Your task to perform on an android device: Open the stopwatch Image 0: 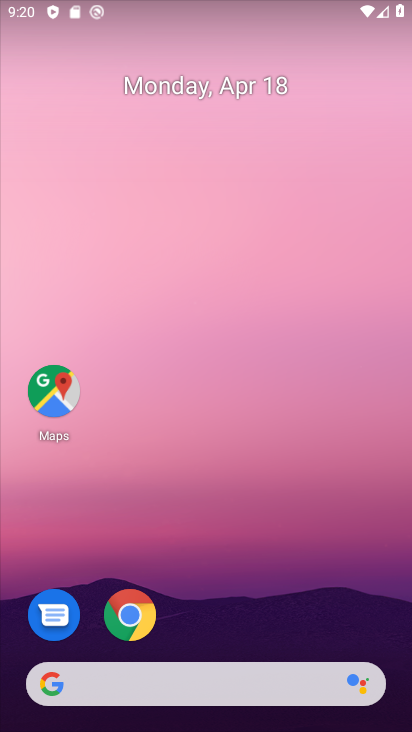
Step 0: drag from (238, 583) to (263, 125)
Your task to perform on an android device: Open the stopwatch Image 1: 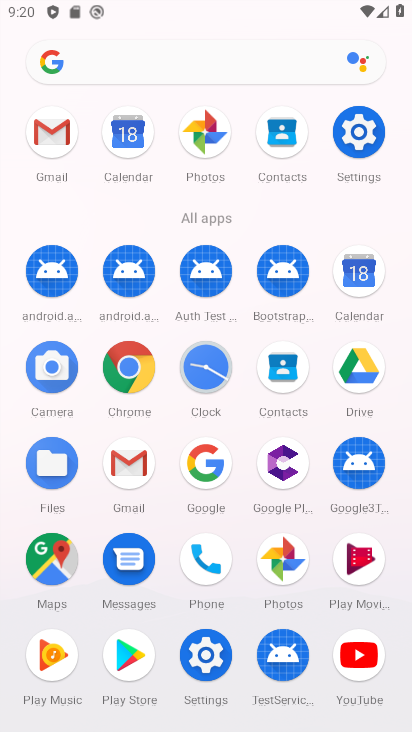
Step 1: click (199, 368)
Your task to perform on an android device: Open the stopwatch Image 2: 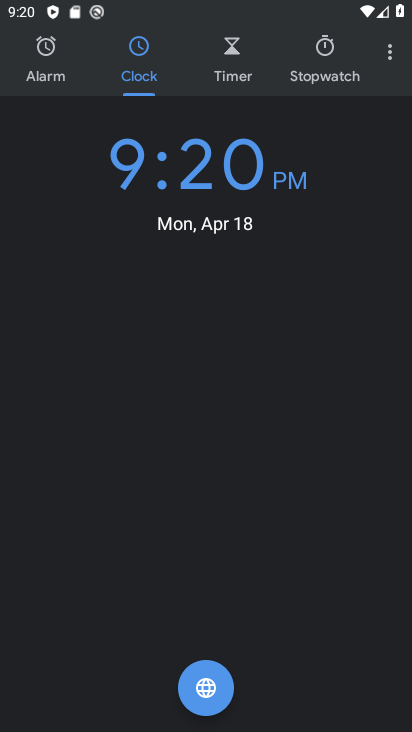
Step 2: click (330, 67)
Your task to perform on an android device: Open the stopwatch Image 3: 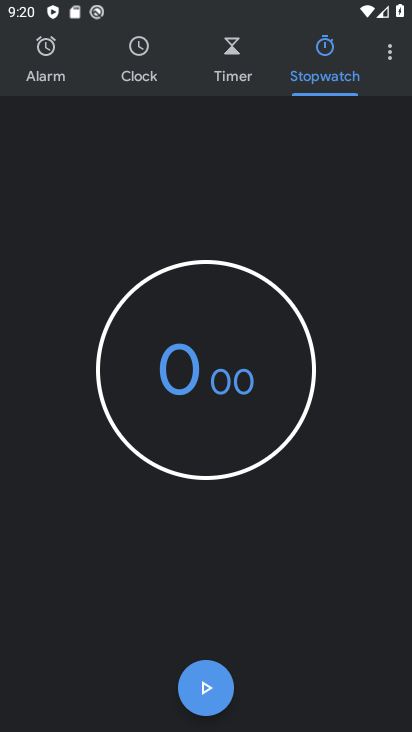
Step 3: click (191, 376)
Your task to perform on an android device: Open the stopwatch Image 4: 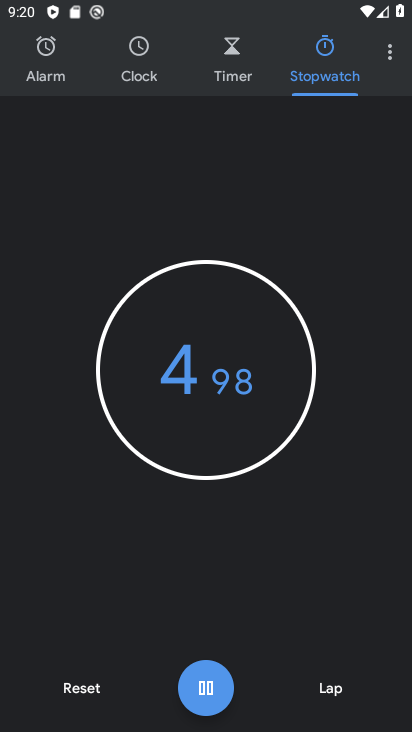
Step 4: click (209, 690)
Your task to perform on an android device: Open the stopwatch Image 5: 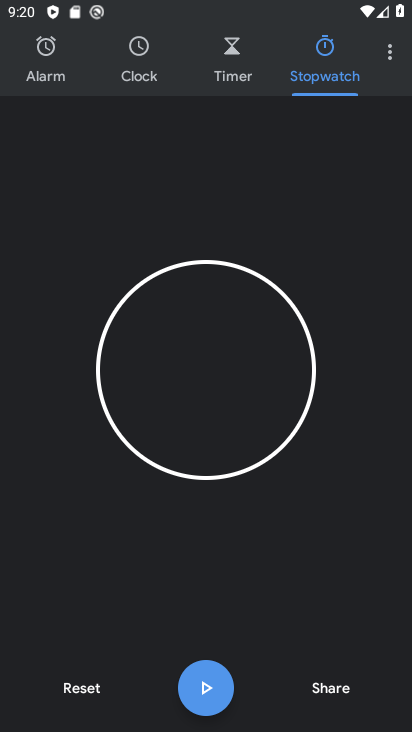
Step 5: task complete